Your task to perform on an android device: Find coffee shops on Maps Image 0: 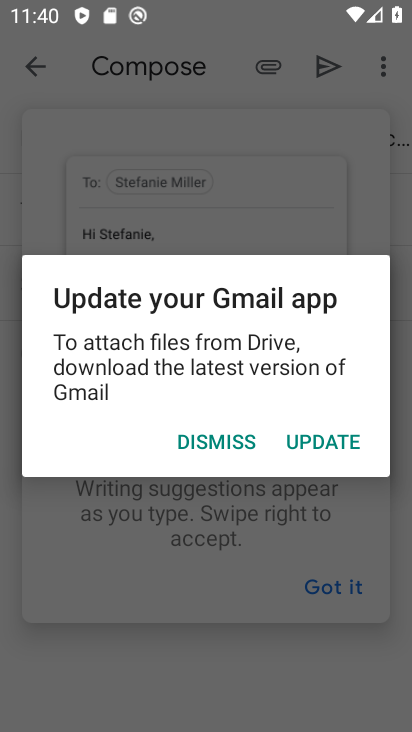
Step 0: press home button
Your task to perform on an android device: Find coffee shops on Maps Image 1: 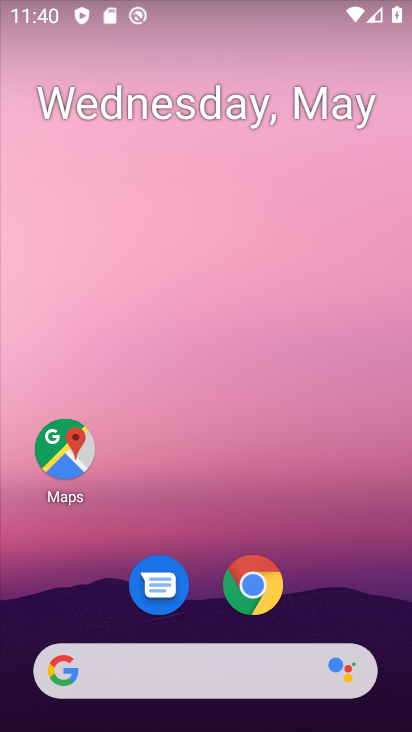
Step 1: click (60, 451)
Your task to perform on an android device: Find coffee shops on Maps Image 2: 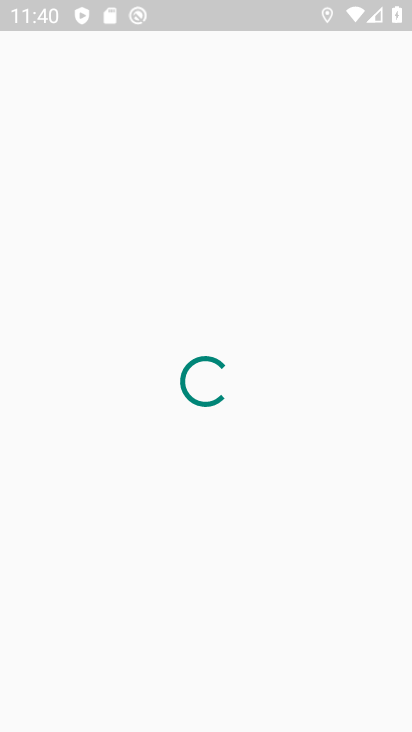
Step 2: click (232, 69)
Your task to perform on an android device: Find coffee shops on Maps Image 3: 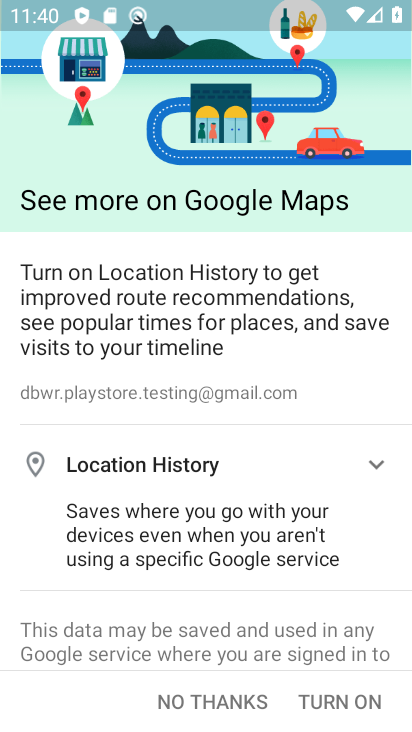
Step 3: click (354, 698)
Your task to perform on an android device: Find coffee shops on Maps Image 4: 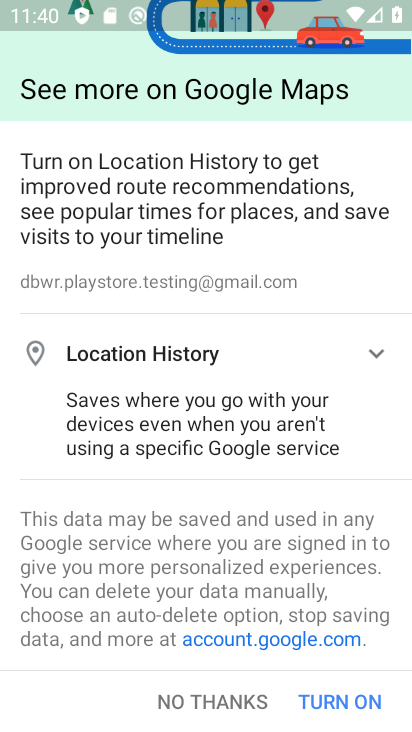
Step 4: click (334, 699)
Your task to perform on an android device: Find coffee shops on Maps Image 5: 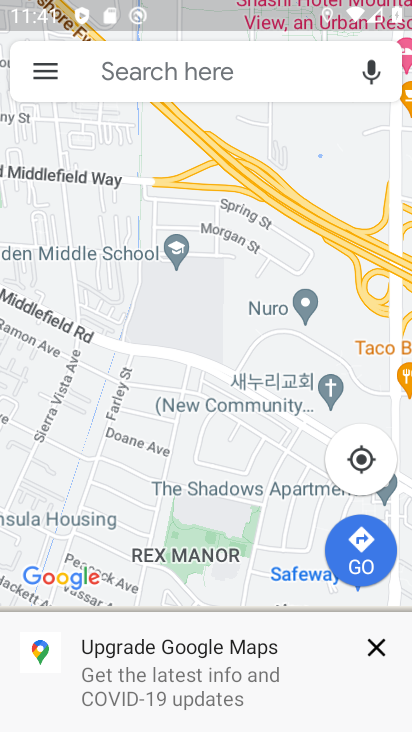
Step 5: click (237, 63)
Your task to perform on an android device: Find coffee shops on Maps Image 6: 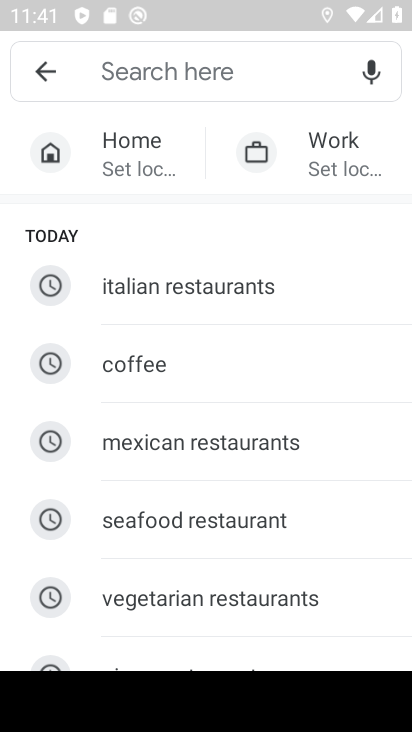
Step 6: click (141, 356)
Your task to perform on an android device: Find coffee shops on Maps Image 7: 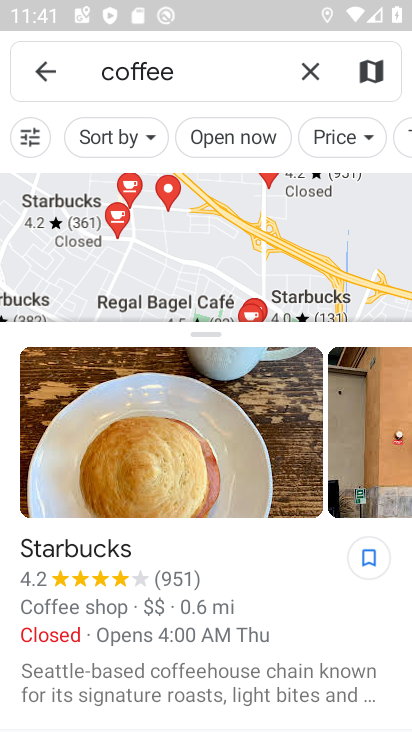
Step 7: task complete